Your task to perform on an android device: Search for the best rated headphones on Amazon. Image 0: 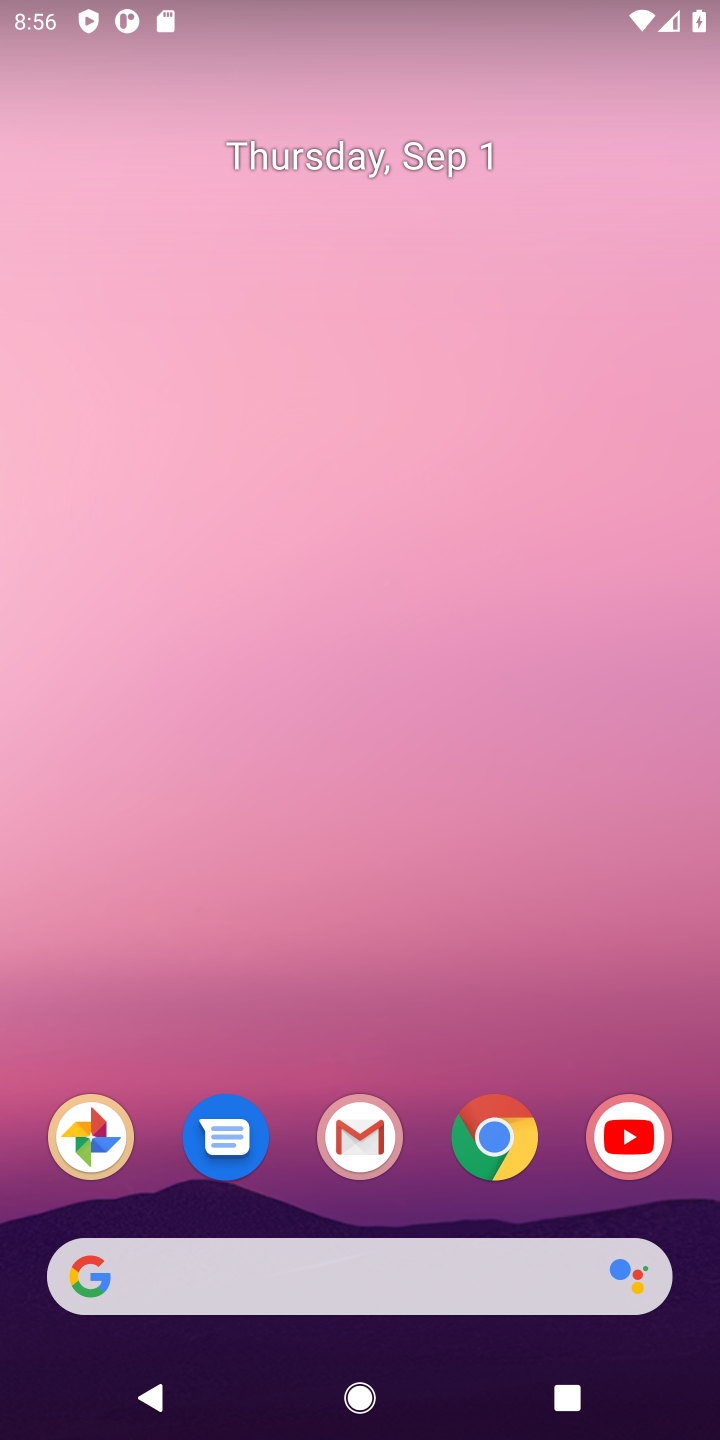
Step 0: drag from (443, 786) to (517, 115)
Your task to perform on an android device: Search for the best rated headphones on Amazon. Image 1: 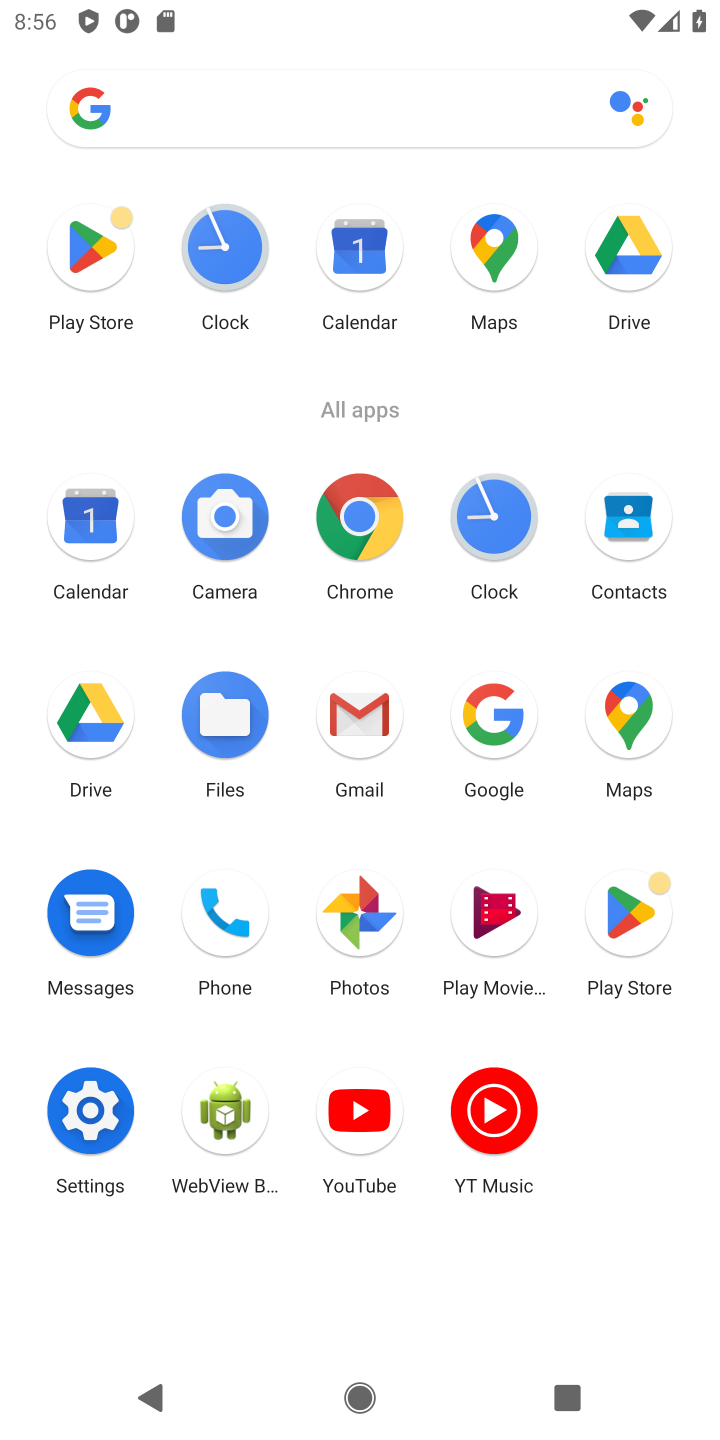
Step 1: click (344, 529)
Your task to perform on an android device: Search for the best rated headphones on Amazon. Image 2: 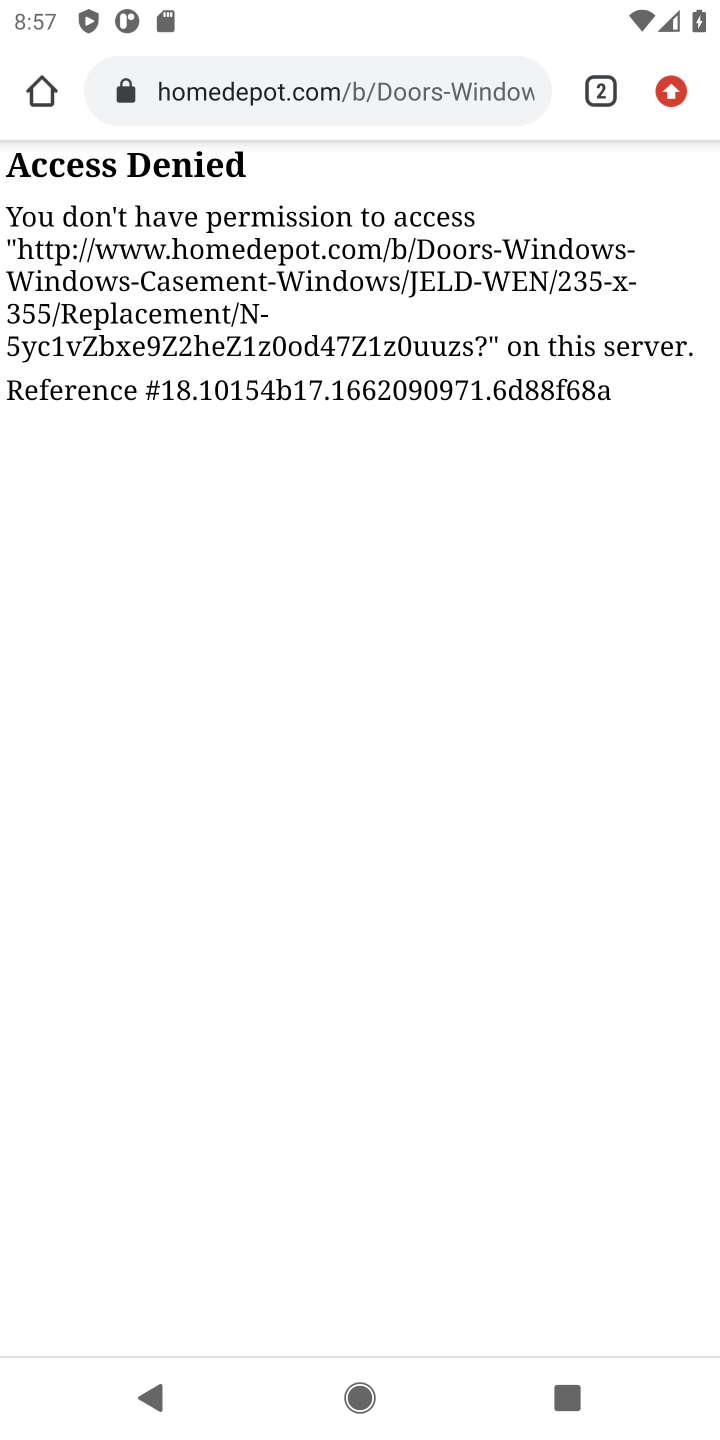
Step 2: click (364, 103)
Your task to perform on an android device: Search for the best rated headphones on Amazon. Image 3: 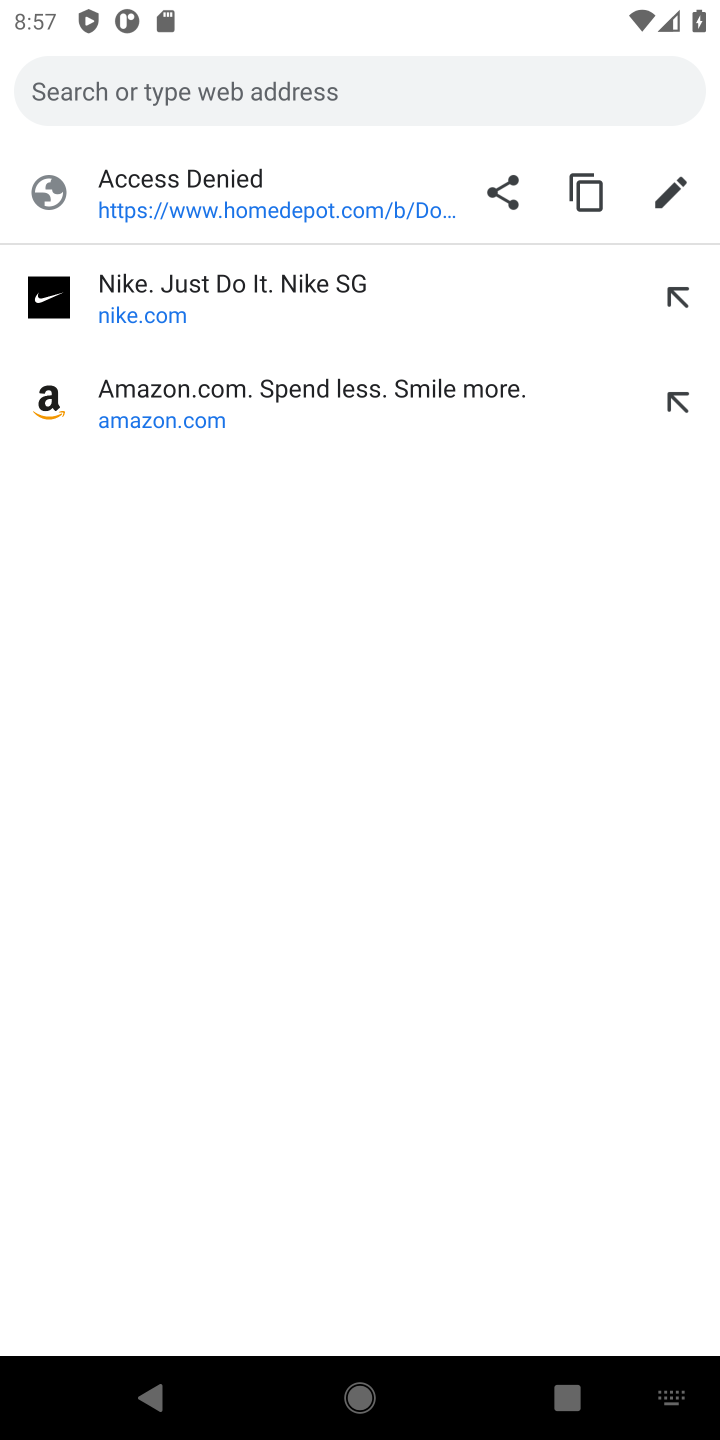
Step 3: type "Amazon"
Your task to perform on an android device: Search for the best rated headphones on Amazon. Image 4: 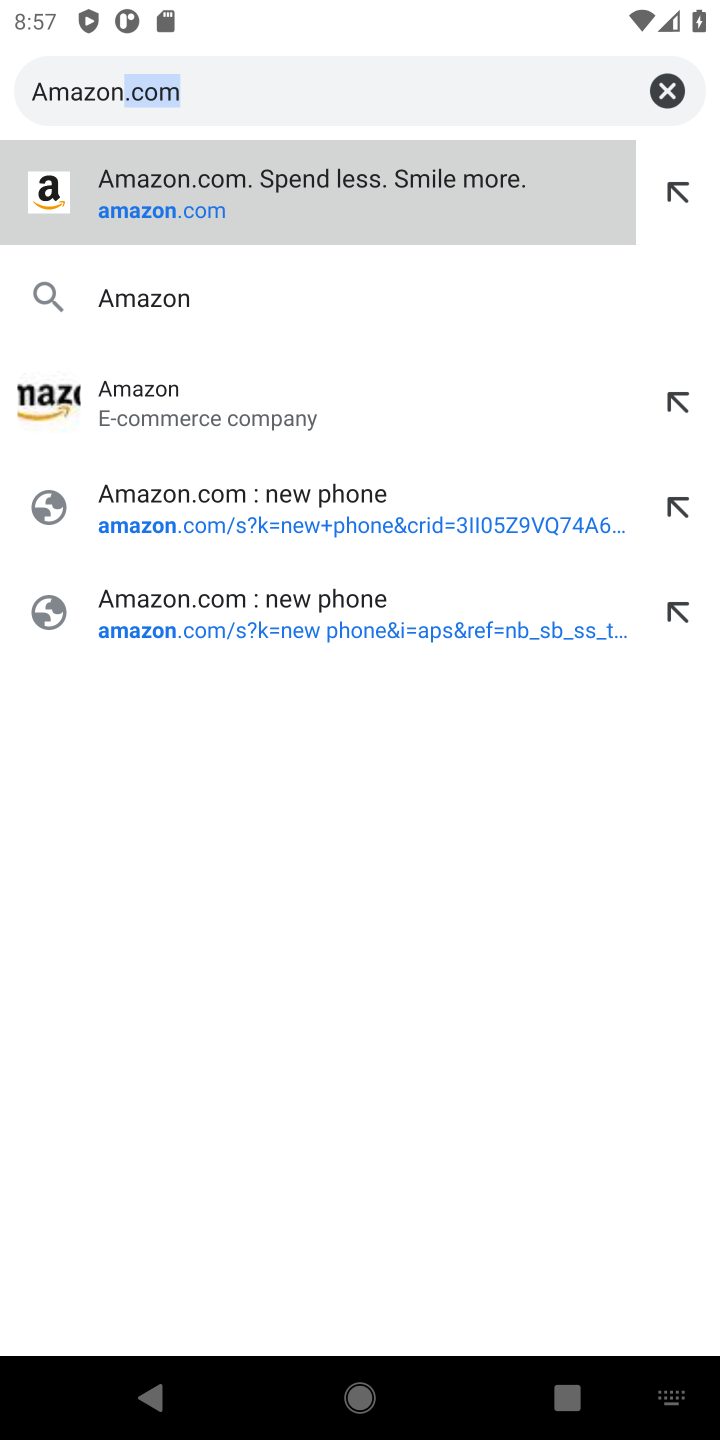
Step 4: click (264, 222)
Your task to perform on an android device: Search for the best rated headphones on Amazon. Image 5: 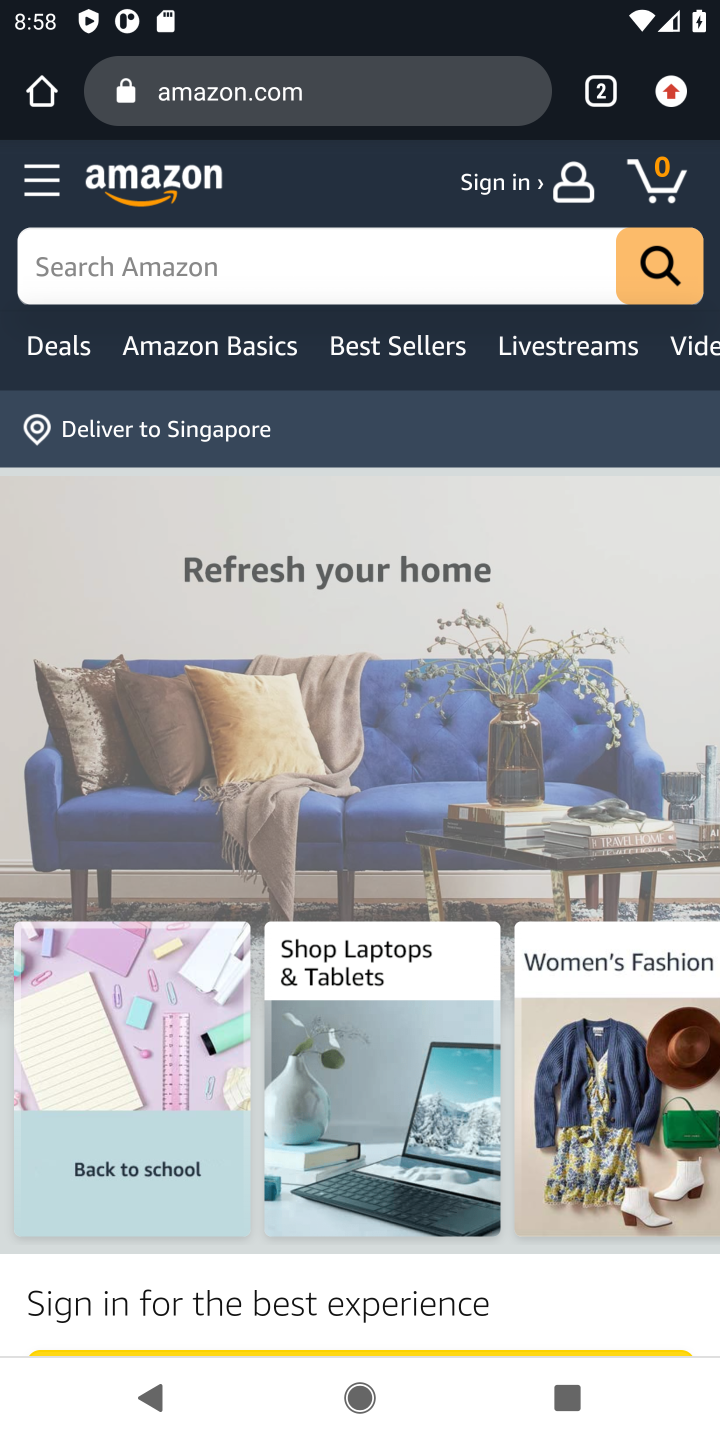
Step 5: click (193, 260)
Your task to perform on an android device: Search for the best rated headphones on Amazon. Image 6: 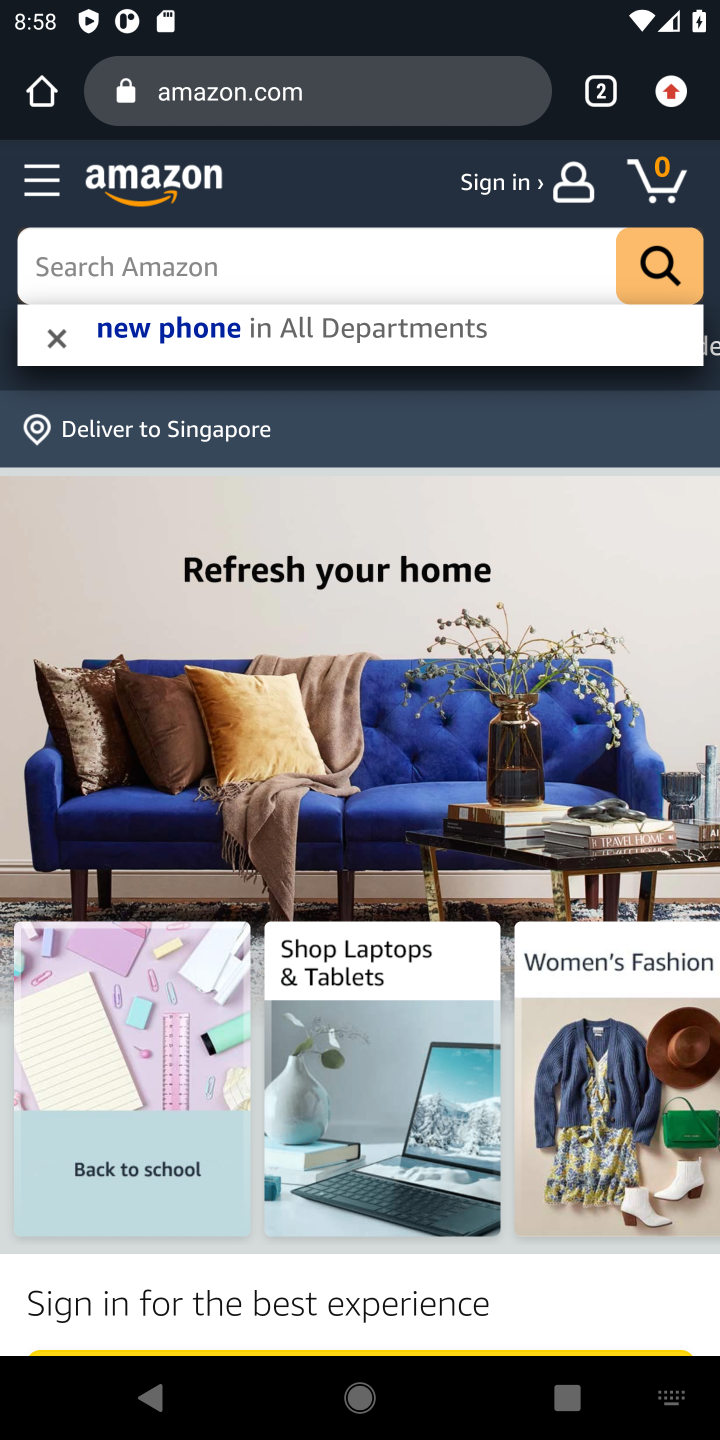
Step 6: type "best rated headphones"
Your task to perform on an android device: Search for the best rated headphones on Amazon. Image 7: 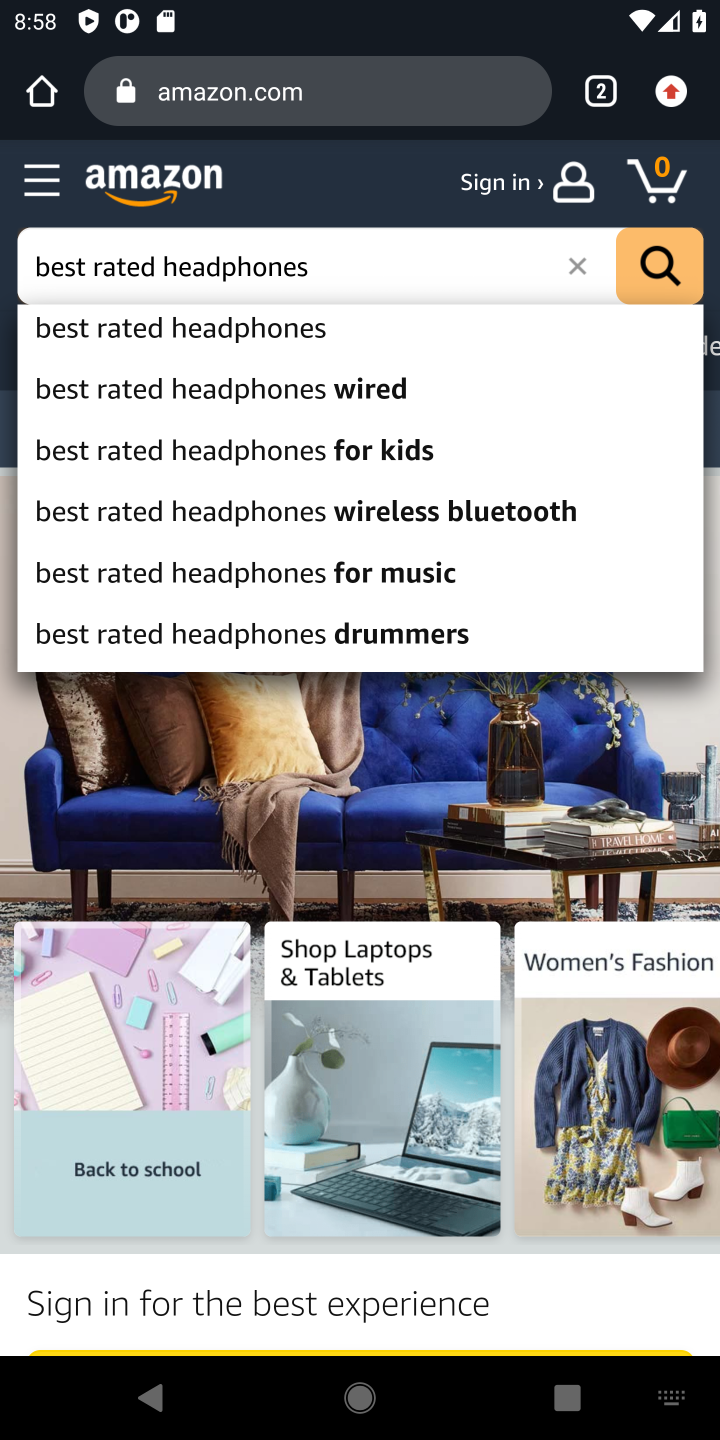
Step 7: click (203, 323)
Your task to perform on an android device: Search for the best rated headphones on Amazon. Image 8: 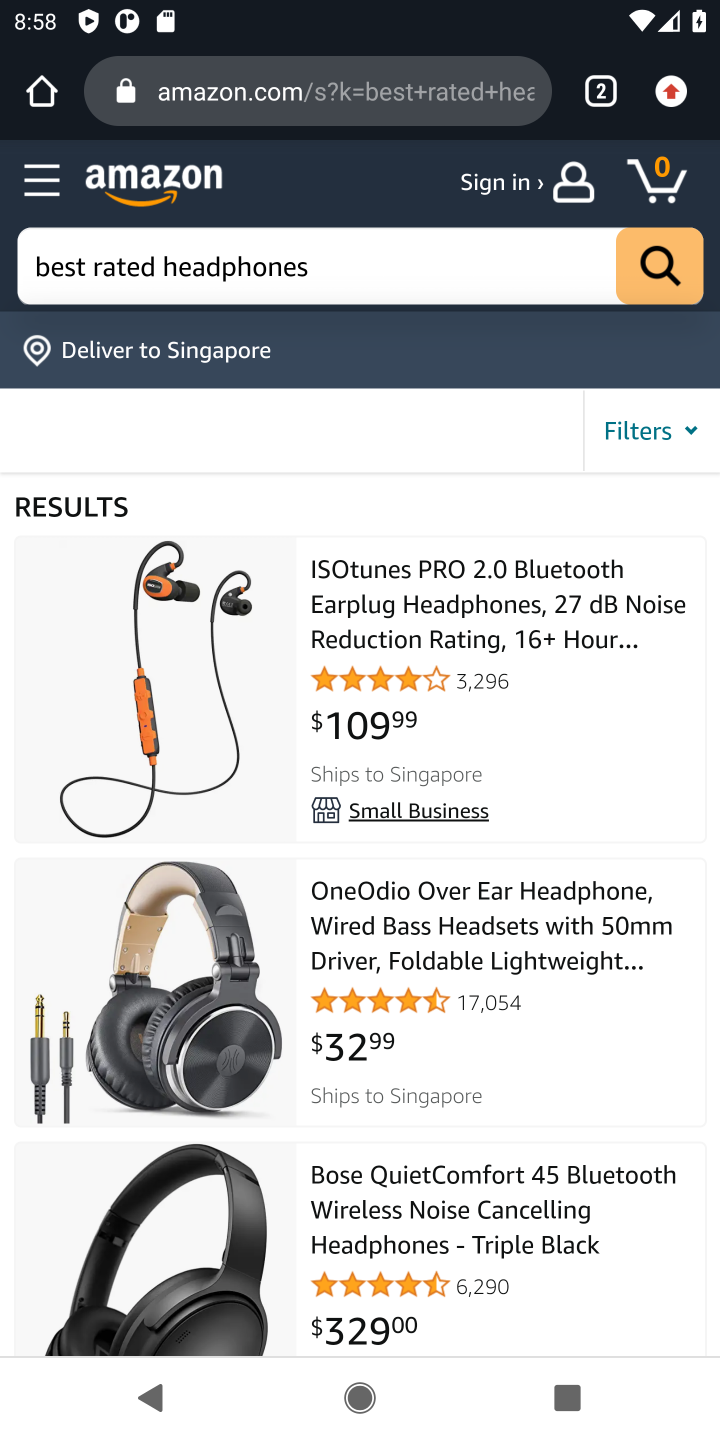
Step 8: task complete